Your task to perform on an android device: turn off location Image 0: 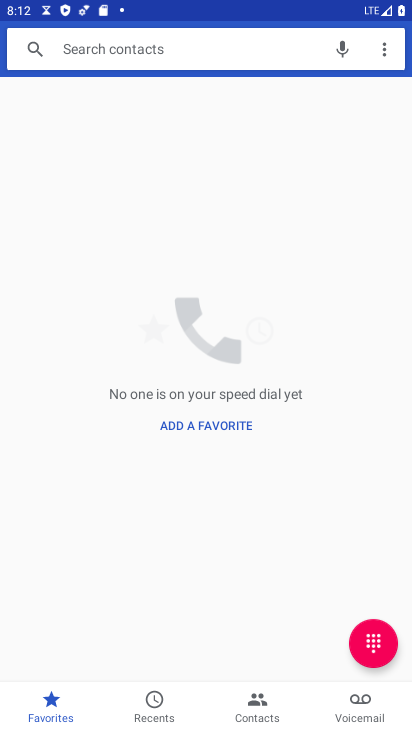
Step 0: press home button
Your task to perform on an android device: turn off location Image 1: 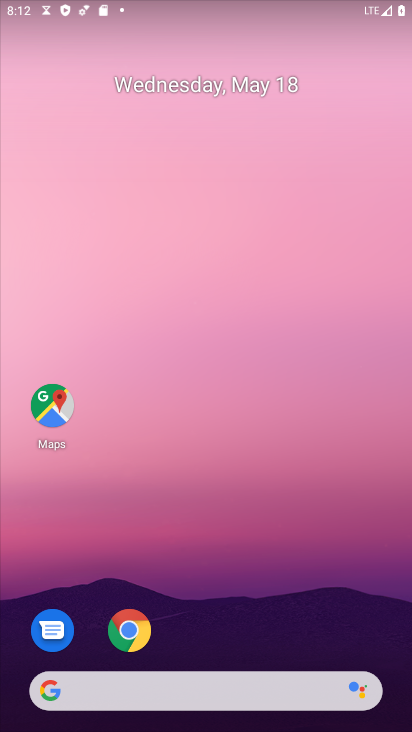
Step 1: drag from (220, 537) to (278, 58)
Your task to perform on an android device: turn off location Image 2: 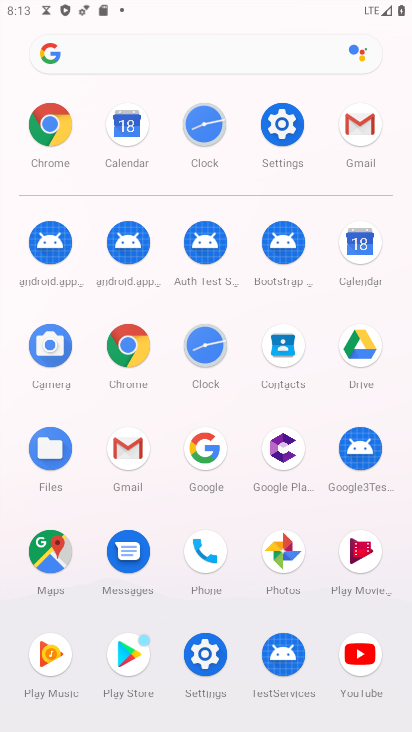
Step 2: click (272, 131)
Your task to perform on an android device: turn off location Image 3: 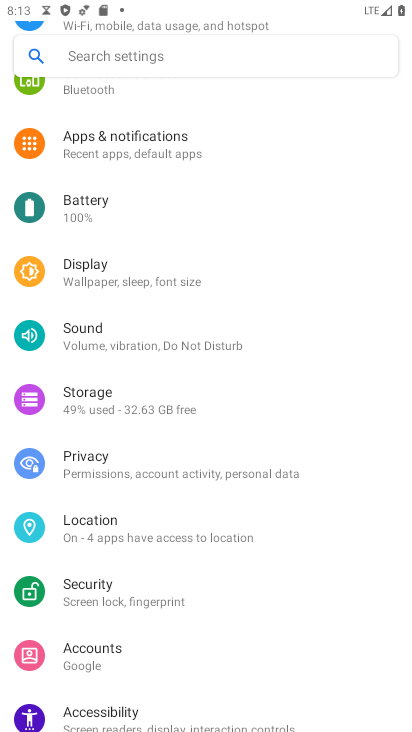
Step 3: click (89, 543)
Your task to perform on an android device: turn off location Image 4: 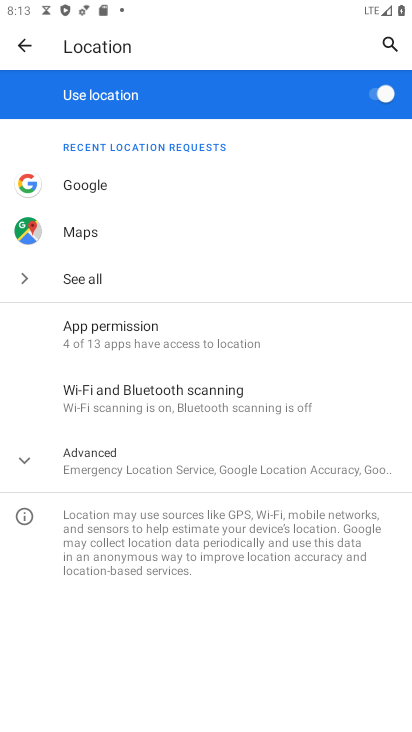
Step 4: click (379, 102)
Your task to perform on an android device: turn off location Image 5: 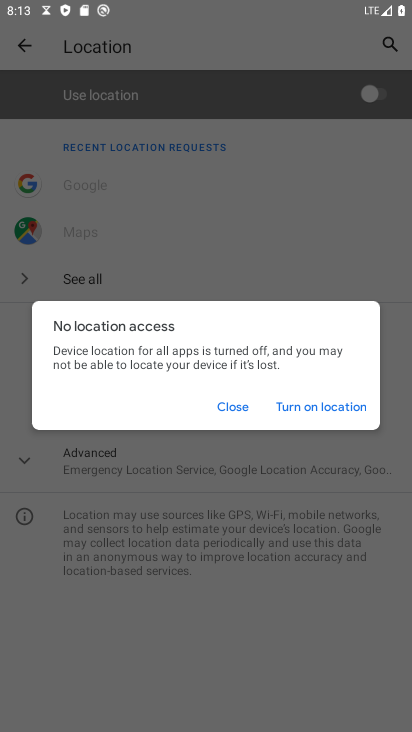
Step 5: task complete